Your task to perform on an android device: change the clock display to show seconds Image 0: 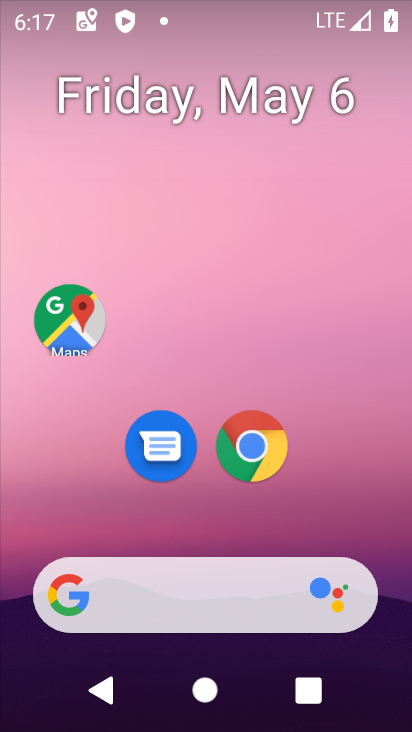
Step 0: drag from (322, 515) to (294, 150)
Your task to perform on an android device: change the clock display to show seconds Image 1: 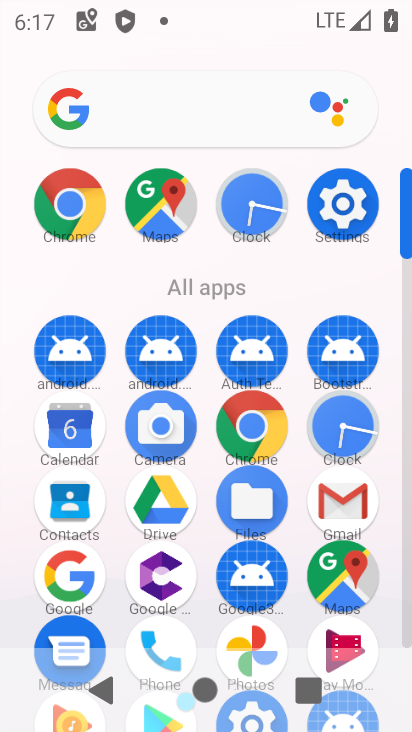
Step 1: click (356, 441)
Your task to perform on an android device: change the clock display to show seconds Image 2: 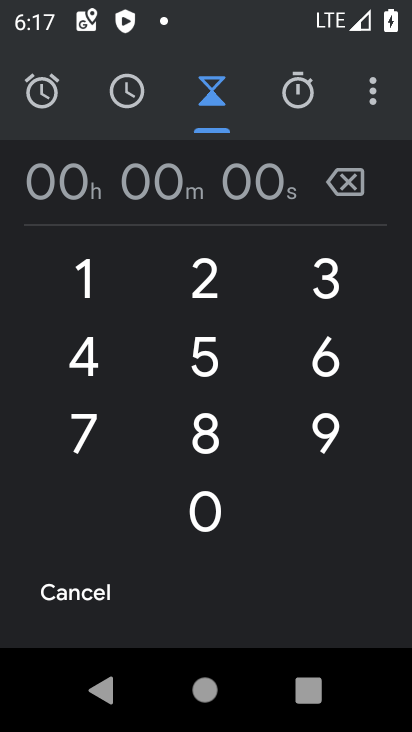
Step 2: click (370, 98)
Your task to perform on an android device: change the clock display to show seconds Image 3: 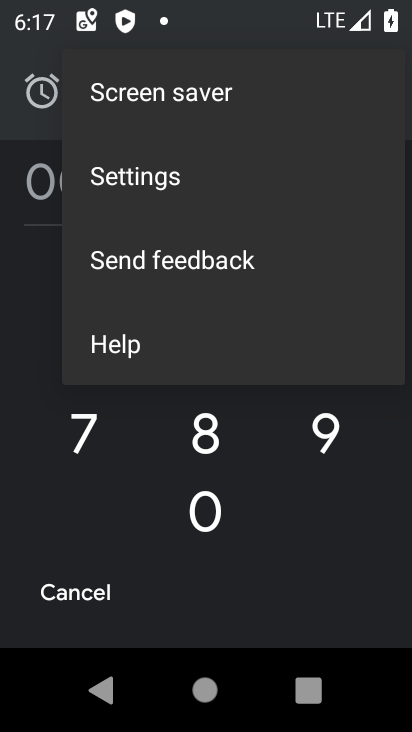
Step 3: click (160, 193)
Your task to perform on an android device: change the clock display to show seconds Image 4: 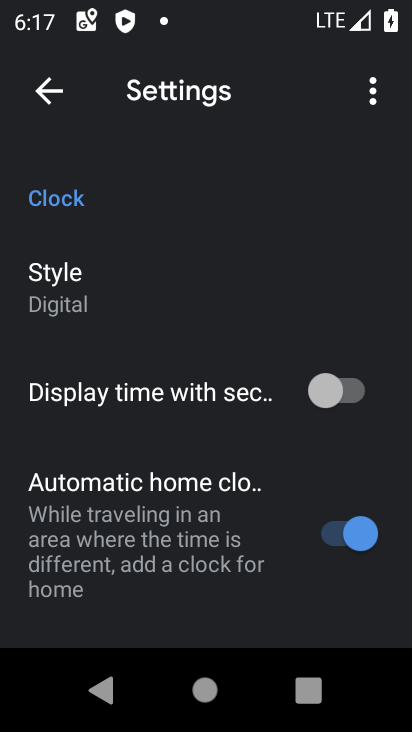
Step 4: click (352, 395)
Your task to perform on an android device: change the clock display to show seconds Image 5: 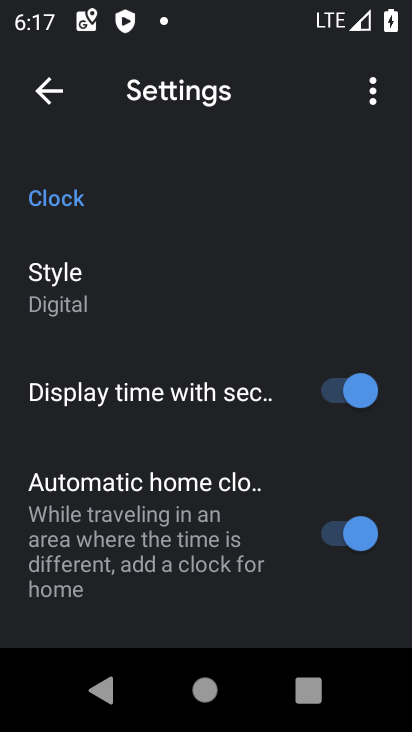
Step 5: task complete